Your task to perform on an android device: Show me recent news Image 0: 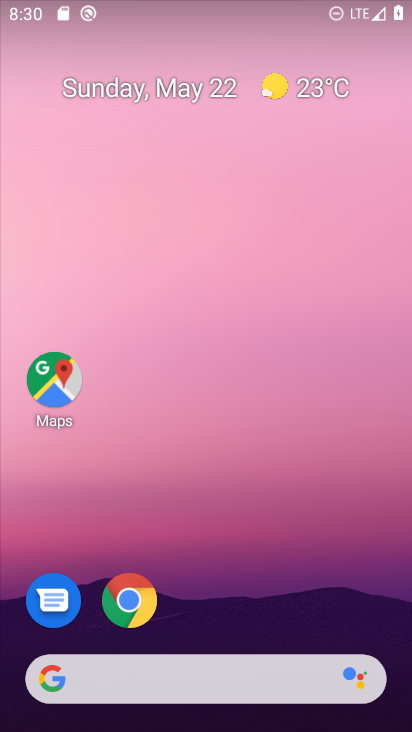
Step 0: drag from (353, 612) to (249, 125)
Your task to perform on an android device: Show me recent news Image 1: 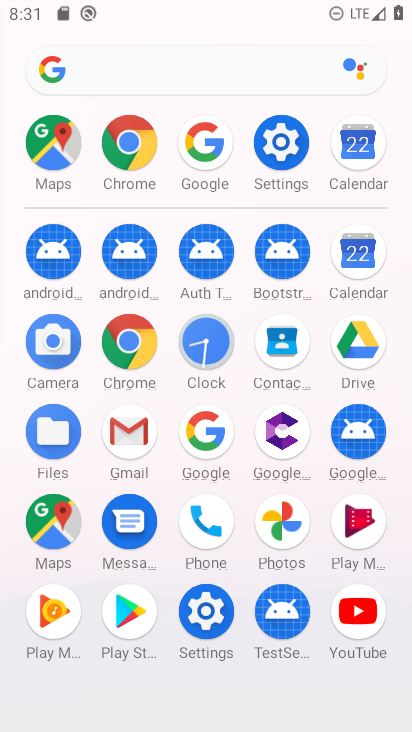
Step 1: click (222, 431)
Your task to perform on an android device: Show me recent news Image 2: 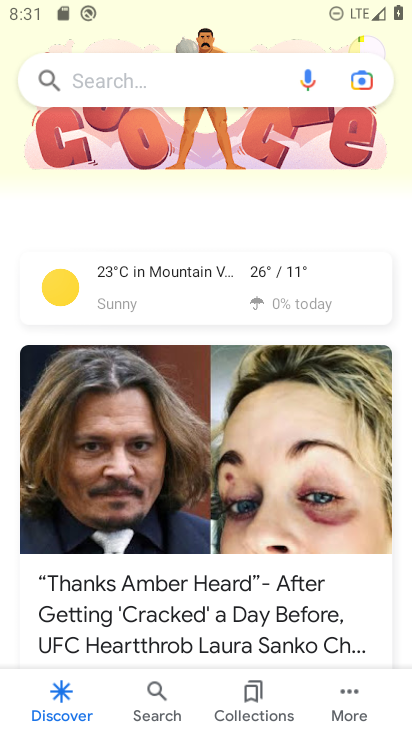
Step 2: click (153, 70)
Your task to perform on an android device: Show me recent news Image 3: 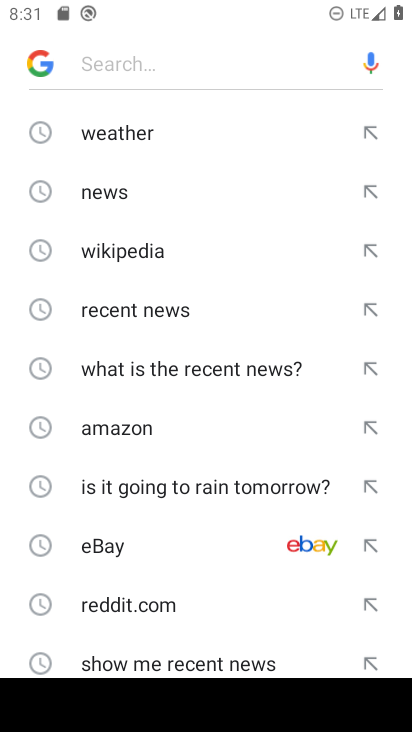
Step 3: click (165, 315)
Your task to perform on an android device: Show me recent news Image 4: 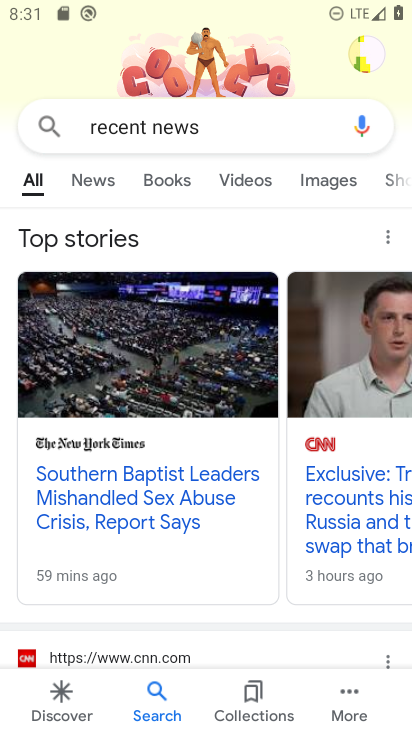
Step 4: task complete